Your task to perform on an android device: remove spam from my inbox in the gmail app Image 0: 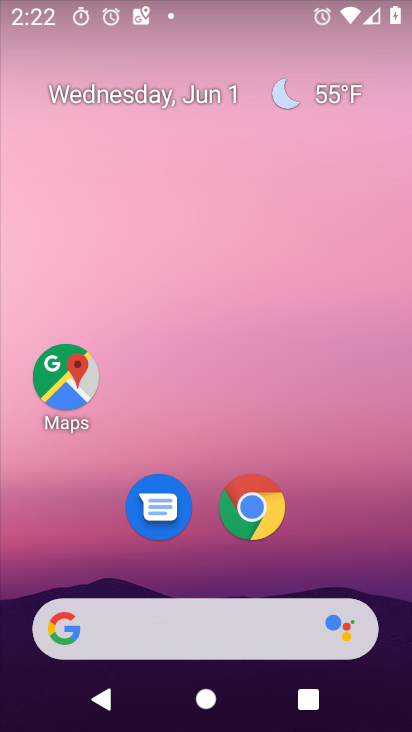
Step 0: drag from (341, 585) to (317, 4)
Your task to perform on an android device: remove spam from my inbox in the gmail app Image 1: 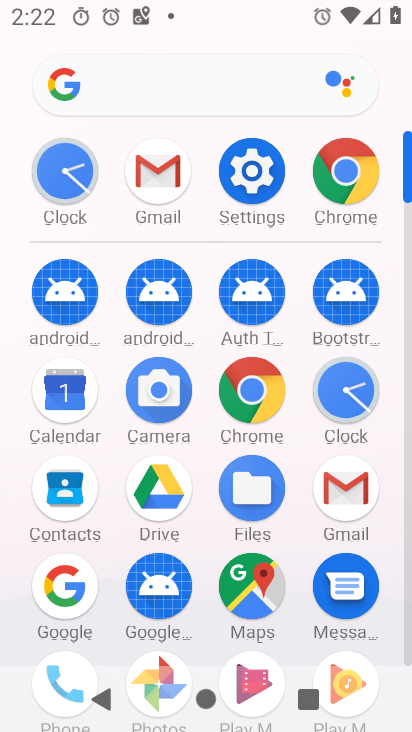
Step 1: click (153, 165)
Your task to perform on an android device: remove spam from my inbox in the gmail app Image 2: 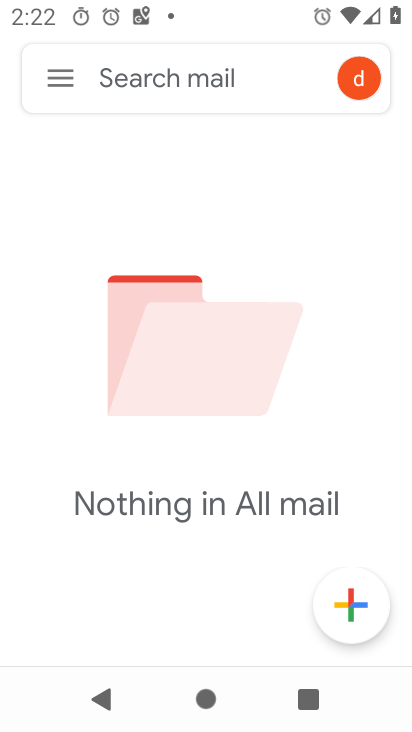
Step 2: click (49, 83)
Your task to perform on an android device: remove spam from my inbox in the gmail app Image 3: 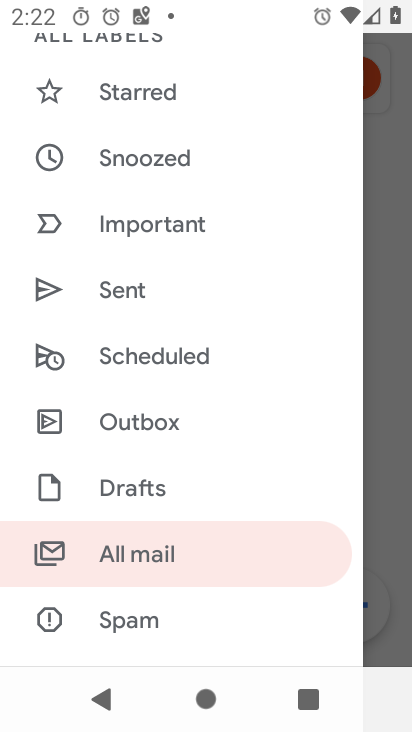
Step 3: click (122, 627)
Your task to perform on an android device: remove spam from my inbox in the gmail app Image 4: 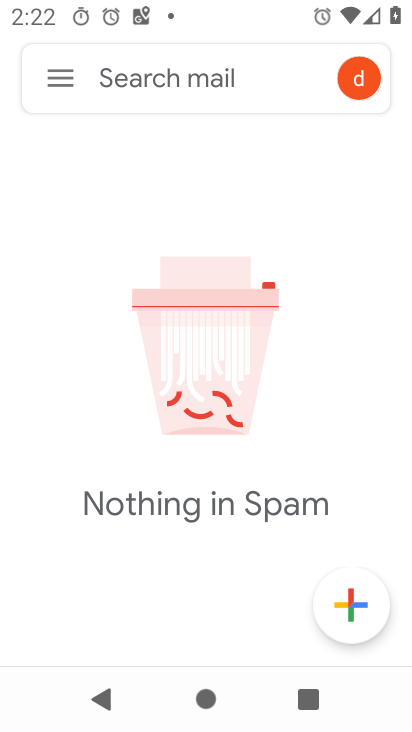
Step 4: task complete